Your task to perform on an android device: change keyboard looks Image 0: 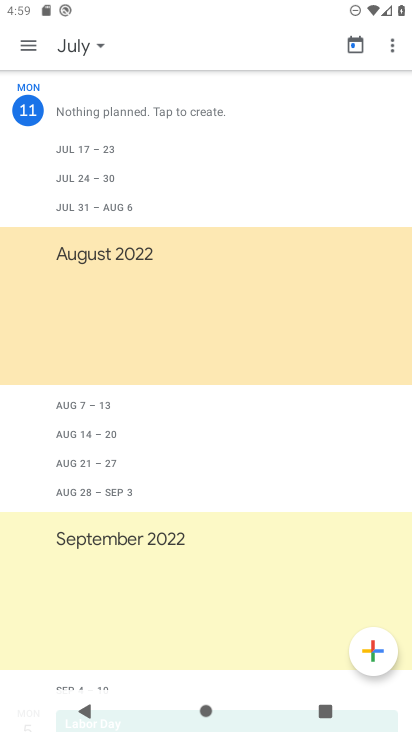
Step 0: press home button
Your task to perform on an android device: change keyboard looks Image 1: 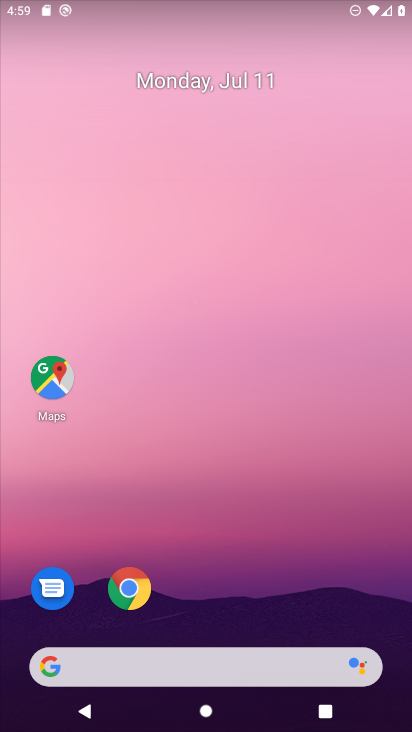
Step 1: click (381, 615)
Your task to perform on an android device: change keyboard looks Image 2: 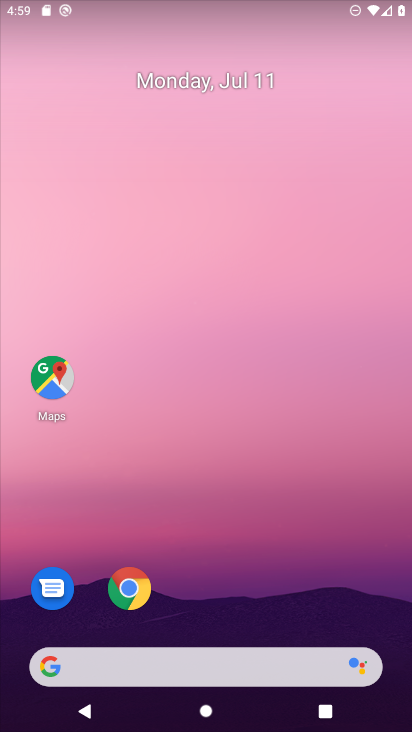
Step 2: drag from (204, 346) to (201, 168)
Your task to perform on an android device: change keyboard looks Image 3: 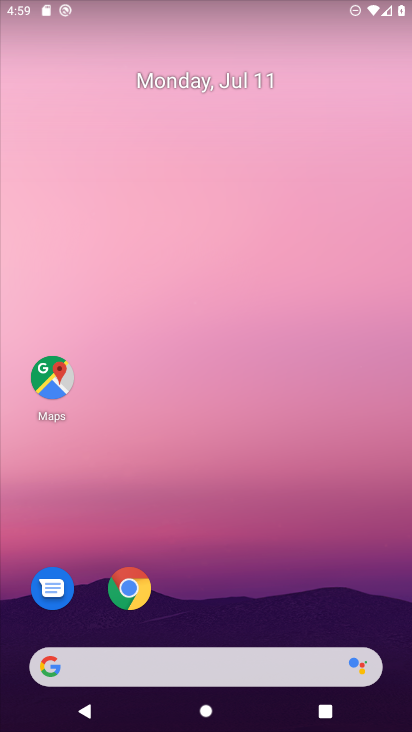
Step 3: drag from (240, 586) to (247, 23)
Your task to perform on an android device: change keyboard looks Image 4: 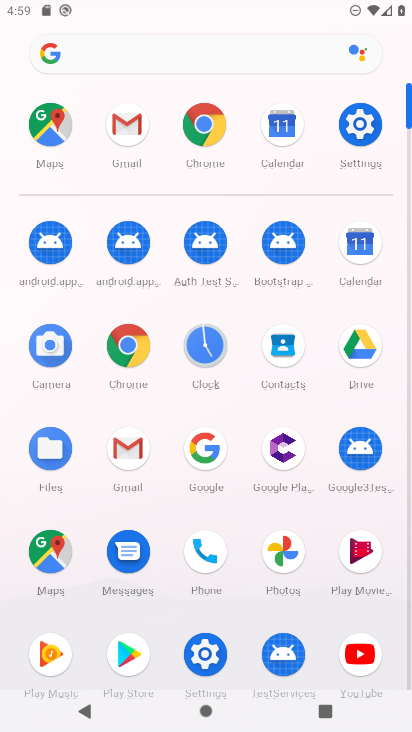
Step 4: click (364, 117)
Your task to perform on an android device: change keyboard looks Image 5: 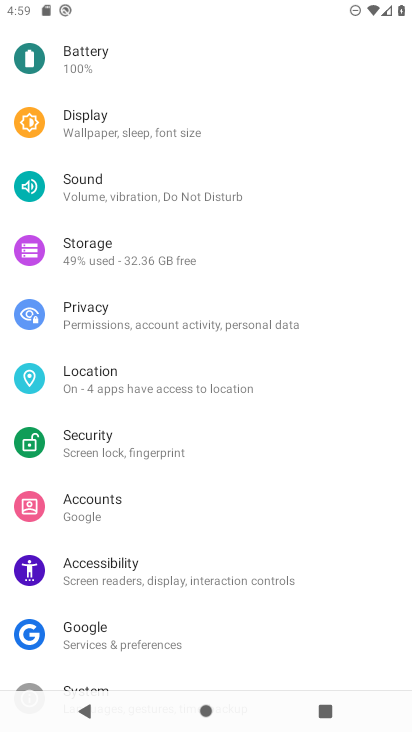
Step 5: drag from (213, 628) to (198, 119)
Your task to perform on an android device: change keyboard looks Image 6: 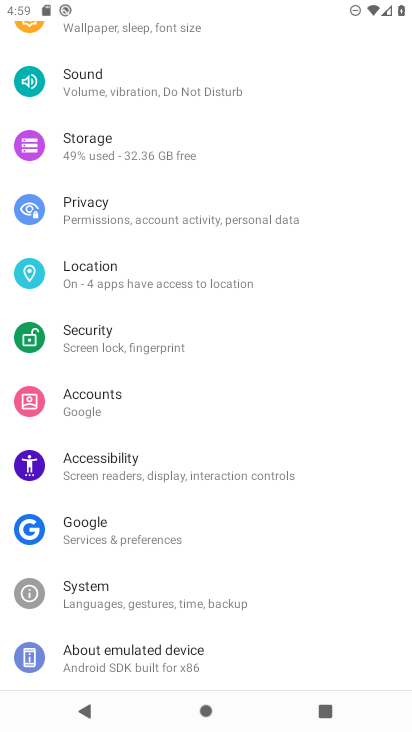
Step 6: click (95, 591)
Your task to perform on an android device: change keyboard looks Image 7: 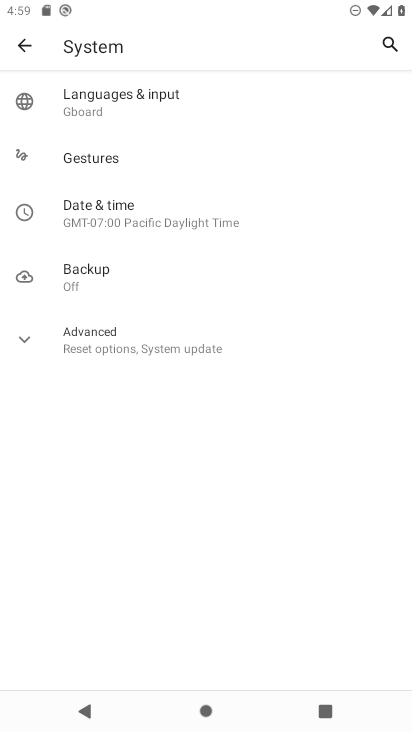
Step 7: click (110, 96)
Your task to perform on an android device: change keyboard looks Image 8: 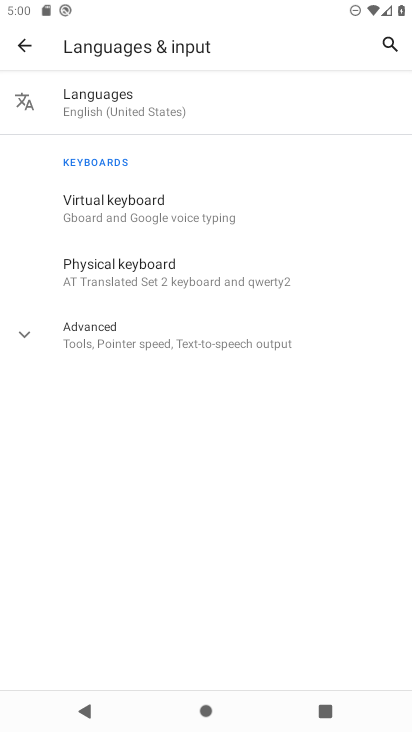
Step 8: click (113, 209)
Your task to perform on an android device: change keyboard looks Image 9: 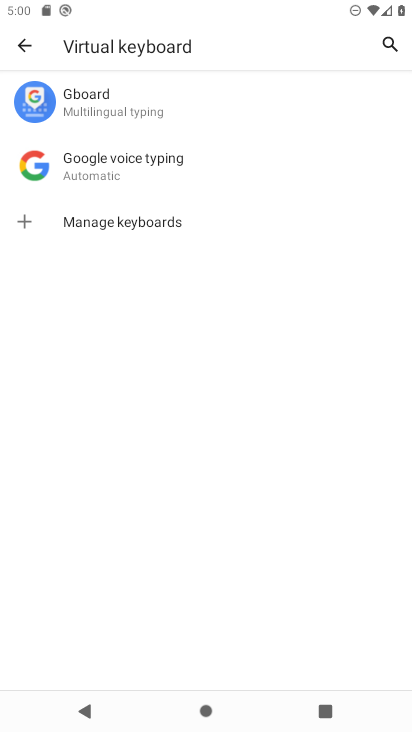
Step 9: click (85, 93)
Your task to perform on an android device: change keyboard looks Image 10: 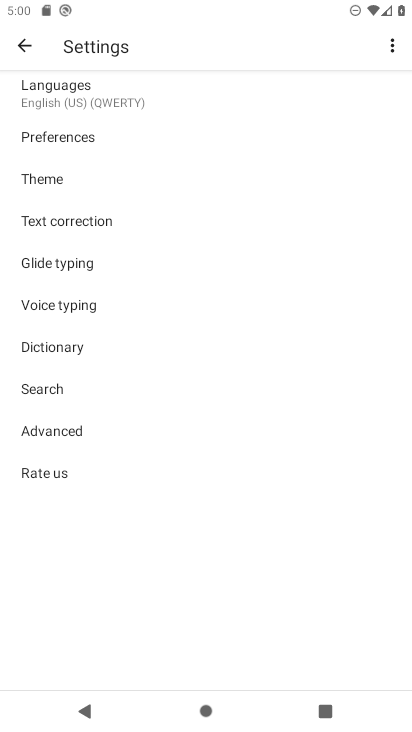
Step 10: click (39, 178)
Your task to perform on an android device: change keyboard looks Image 11: 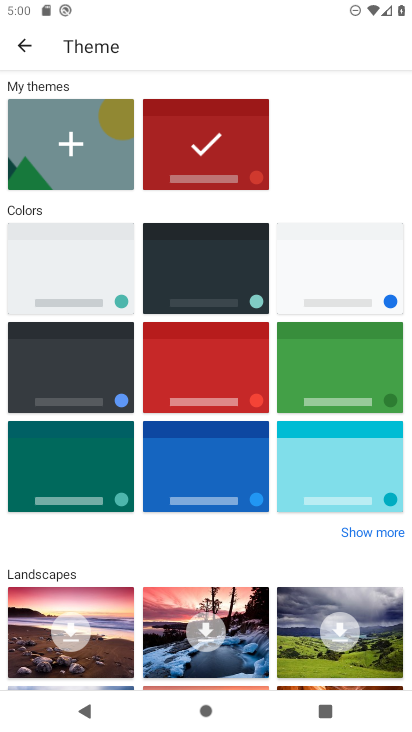
Step 11: click (205, 269)
Your task to perform on an android device: change keyboard looks Image 12: 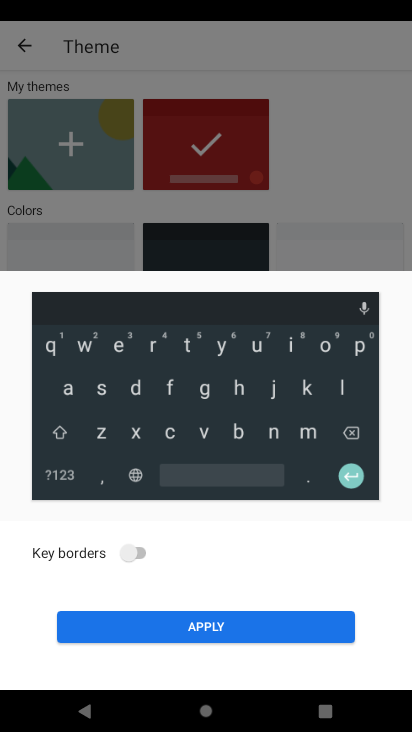
Step 12: click (136, 630)
Your task to perform on an android device: change keyboard looks Image 13: 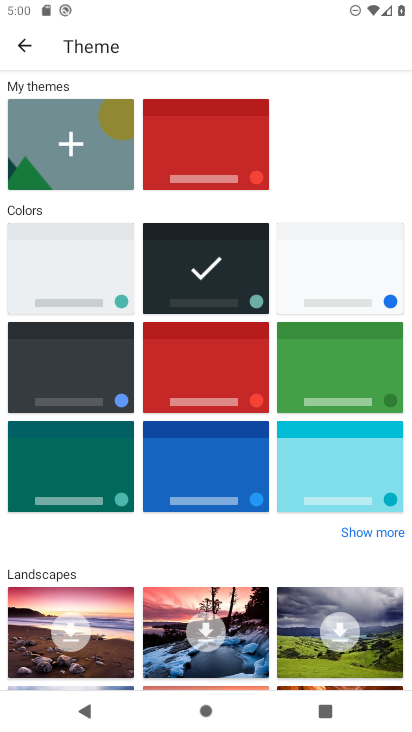
Step 13: task complete